Your task to perform on an android device: turn off picture-in-picture Image 0: 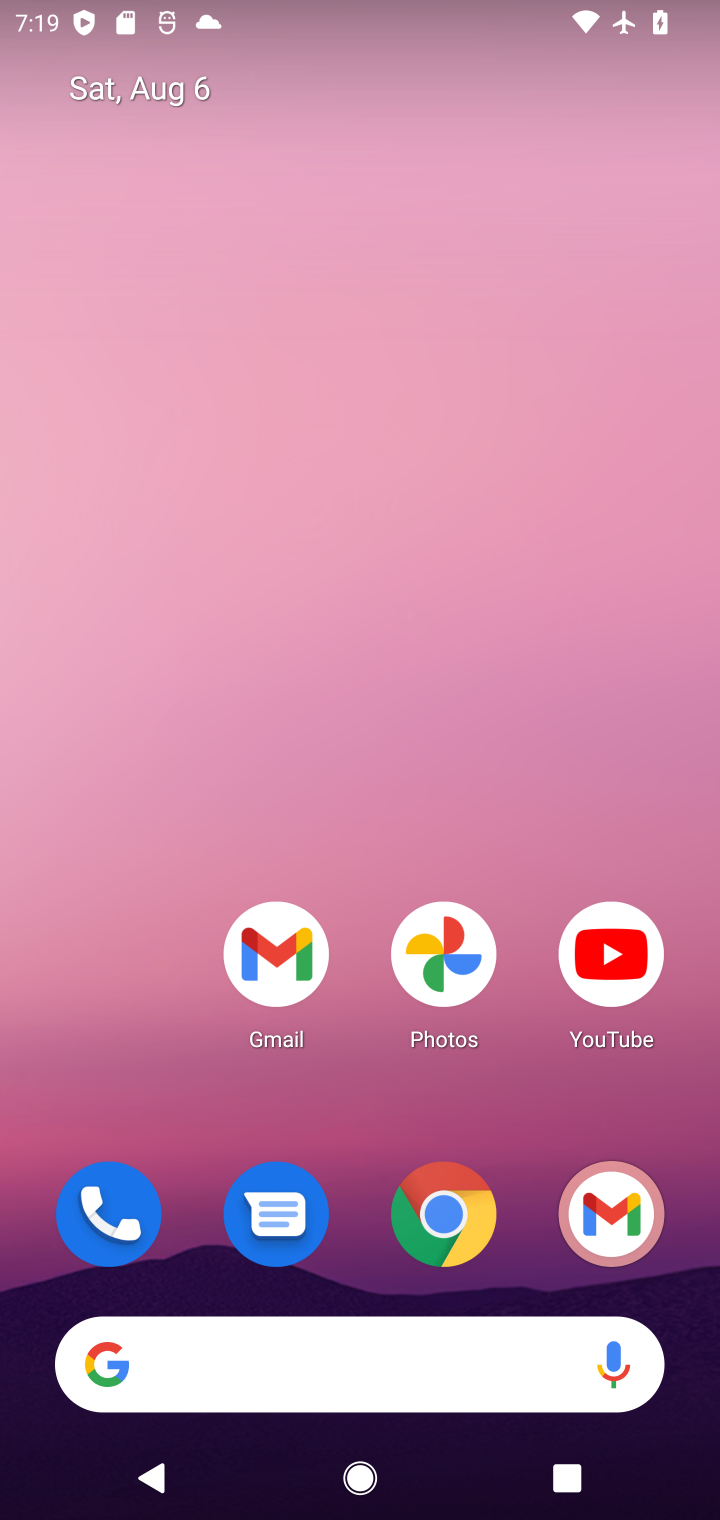
Step 0: click (443, 1227)
Your task to perform on an android device: turn off picture-in-picture Image 1: 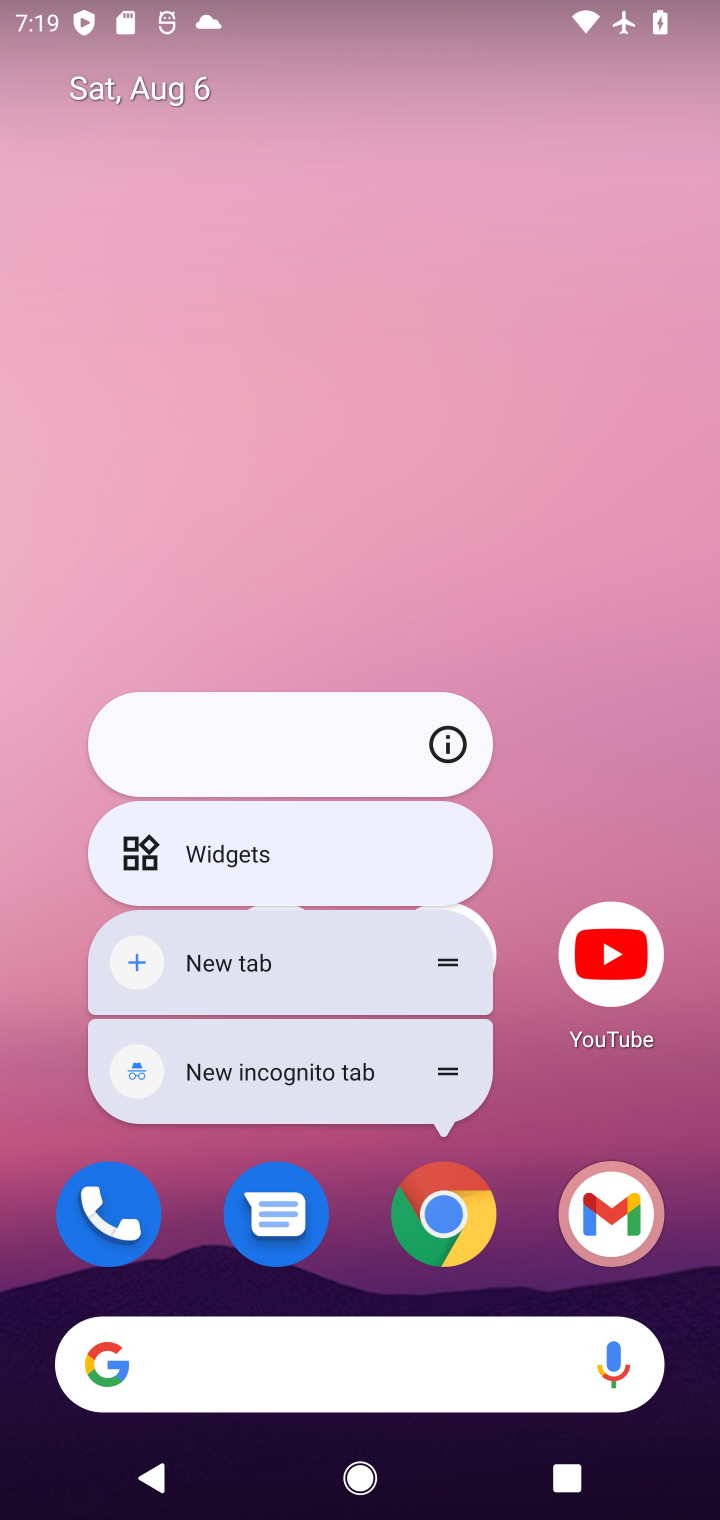
Step 1: click (458, 748)
Your task to perform on an android device: turn off picture-in-picture Image 2: 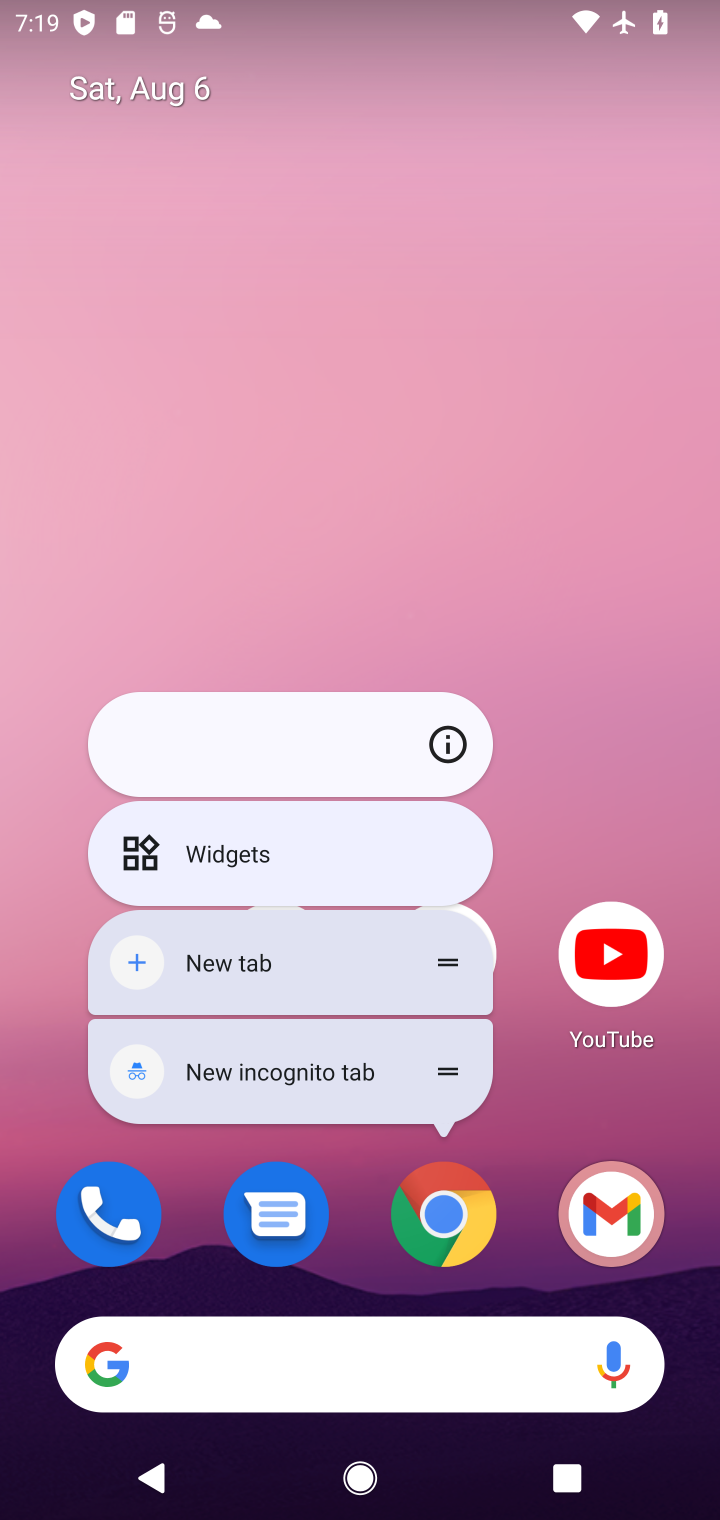
Step 2: click (441, 740)
Your task to perform on an android device: turn off picture-in-picture Image 3: 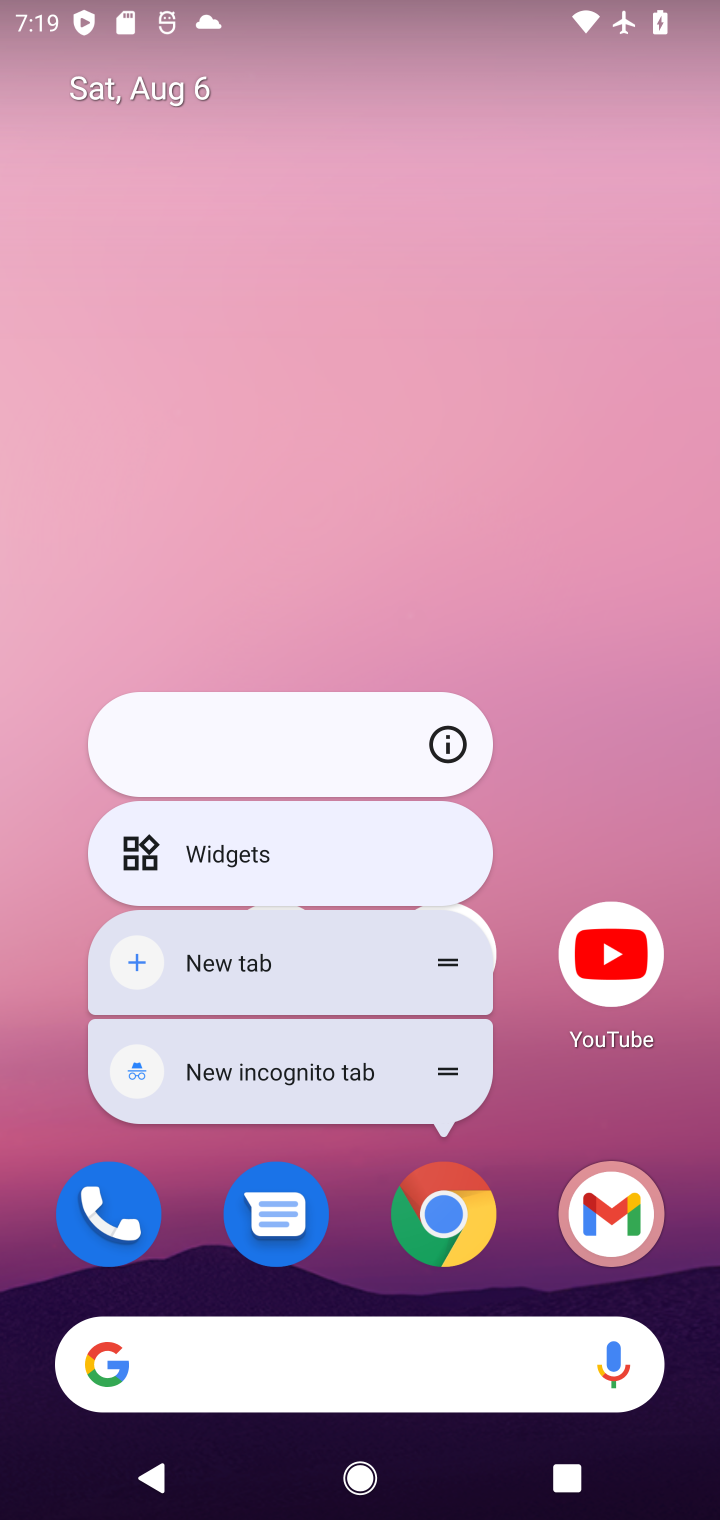
Step 3: click (441, 771)
Your task to perform on an android device: turn off picture-in-picture Image 4: 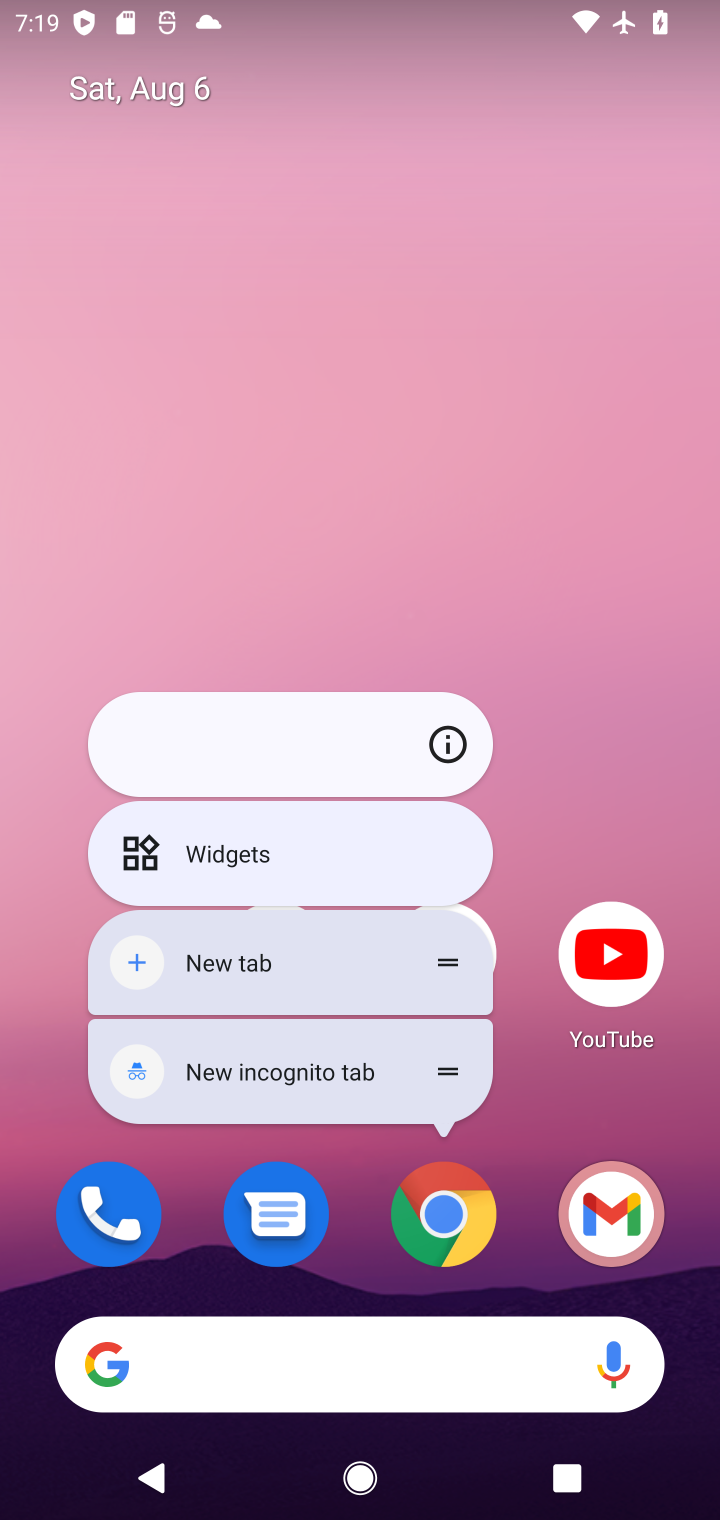
Step 4: click (451, 737)
Your task to perform on an android device: turn off picture-in-picture Image 5: 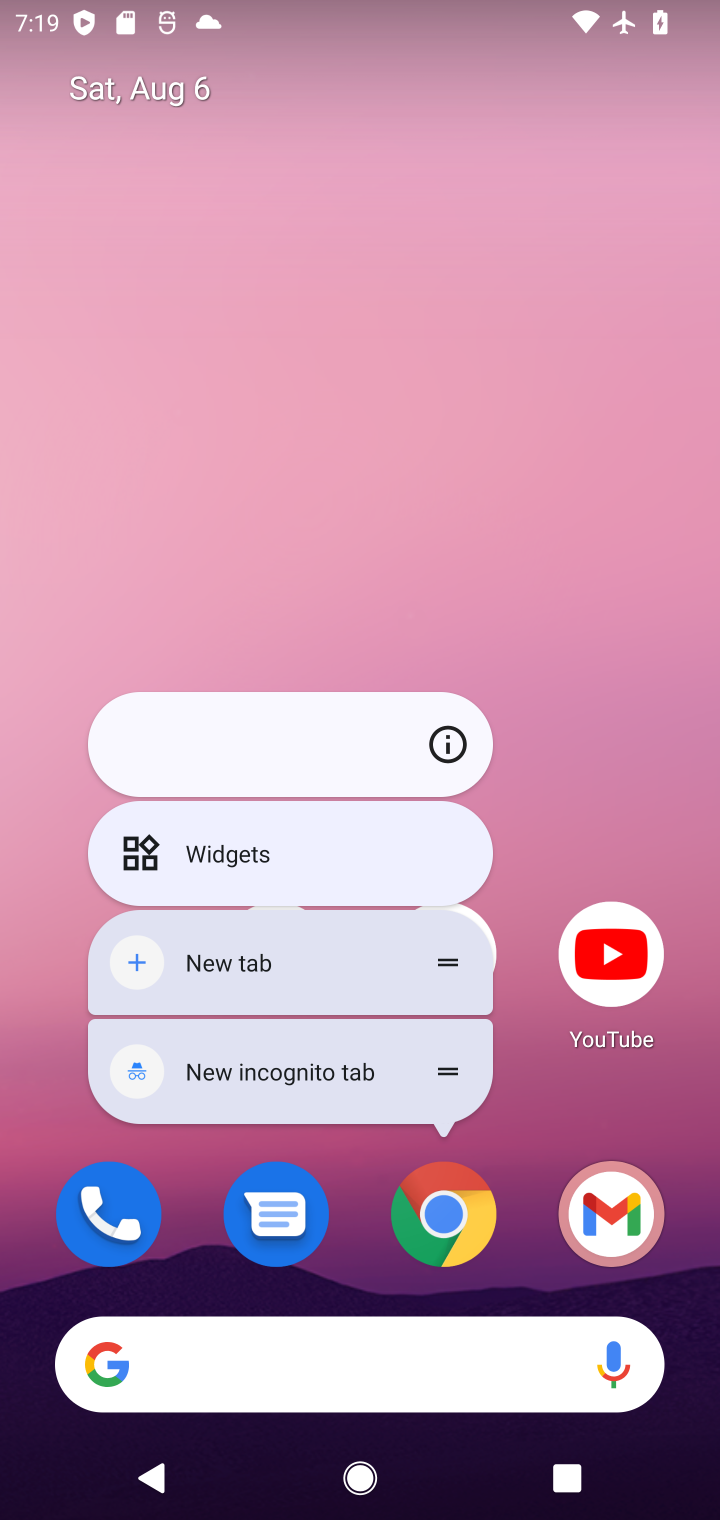
Step 5: click (448, 739)
Your task to perform on an android device: turn off picture-in-picture Image 6: 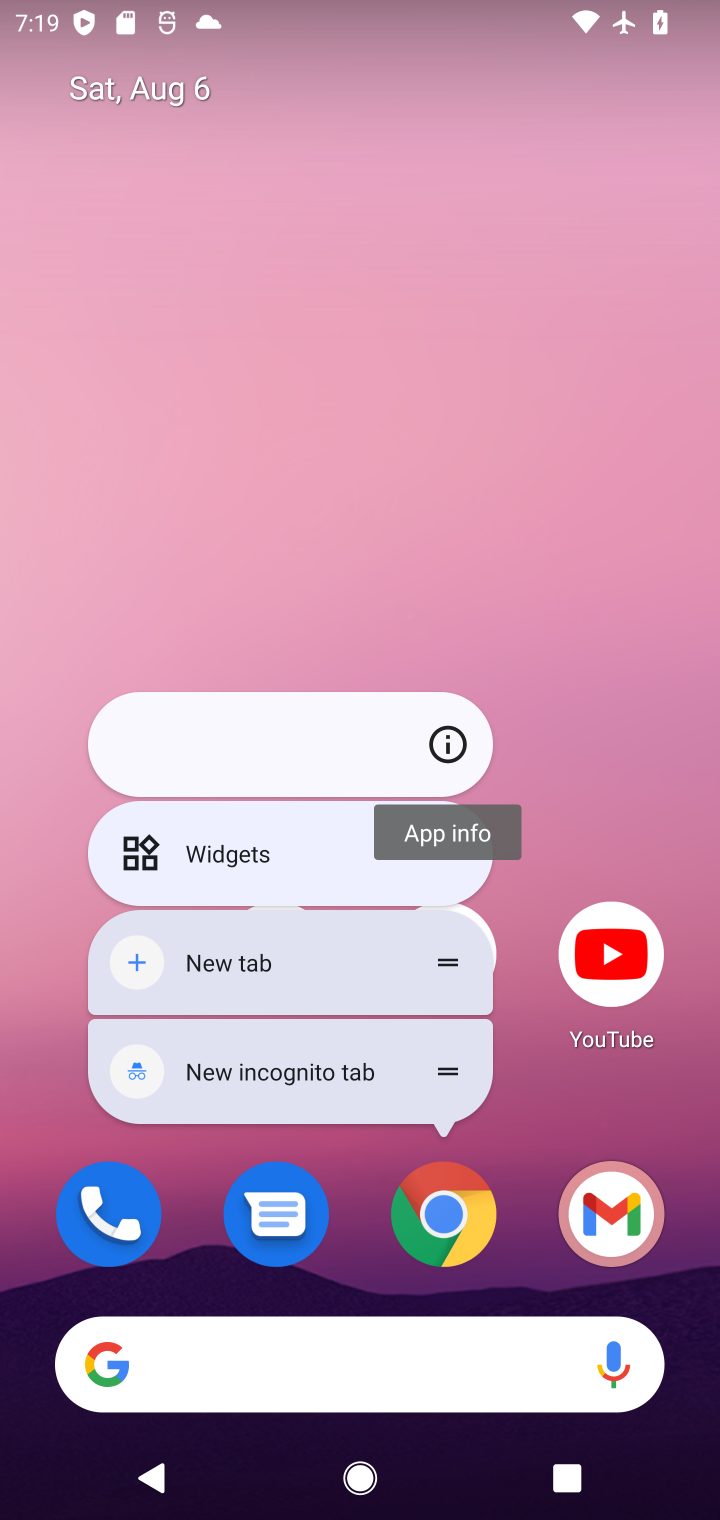
Step 6: click (452, 745)
Your task to perform on an android device: turn off picture-in-picture Image 7: 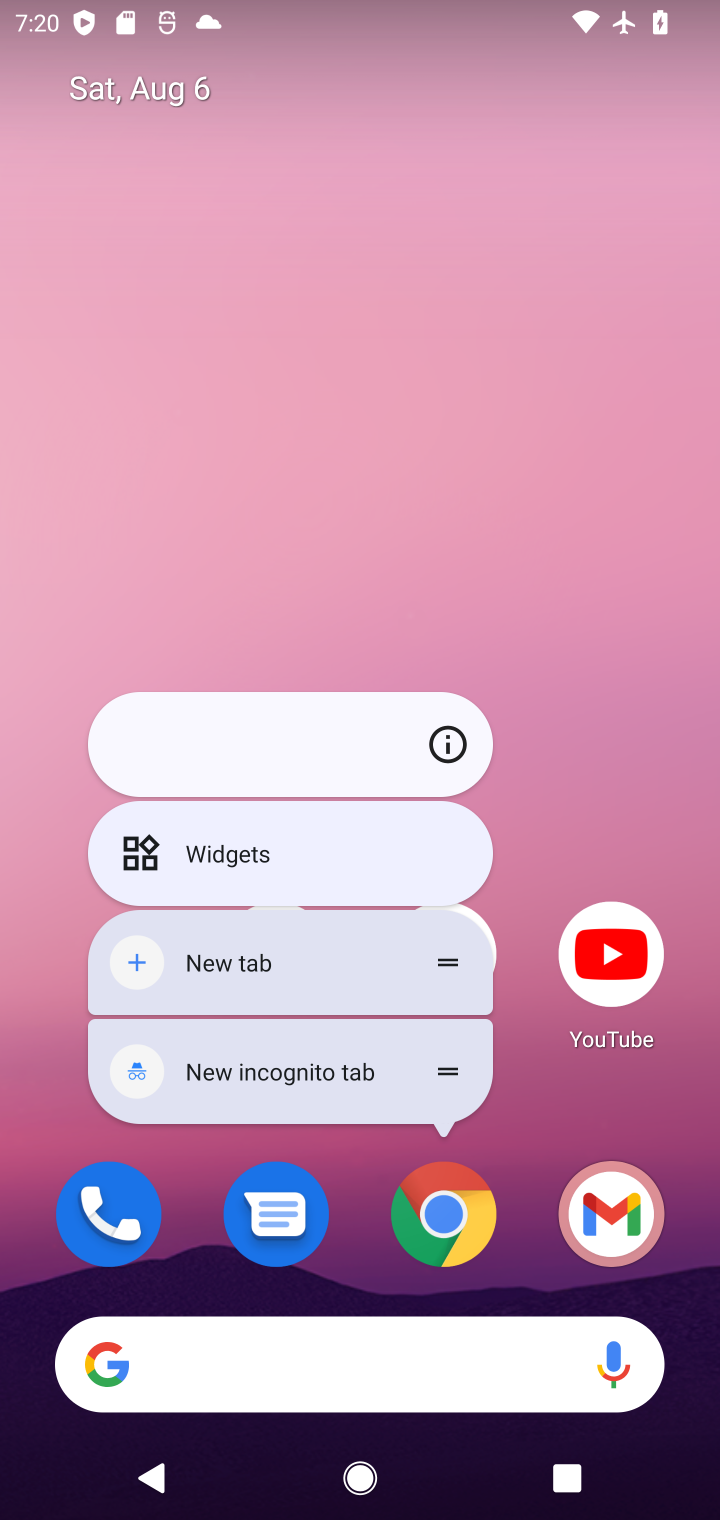
Step 7: click (459, 749)
Your task to perform on an android device: turn off picture-in-picture Image 8: 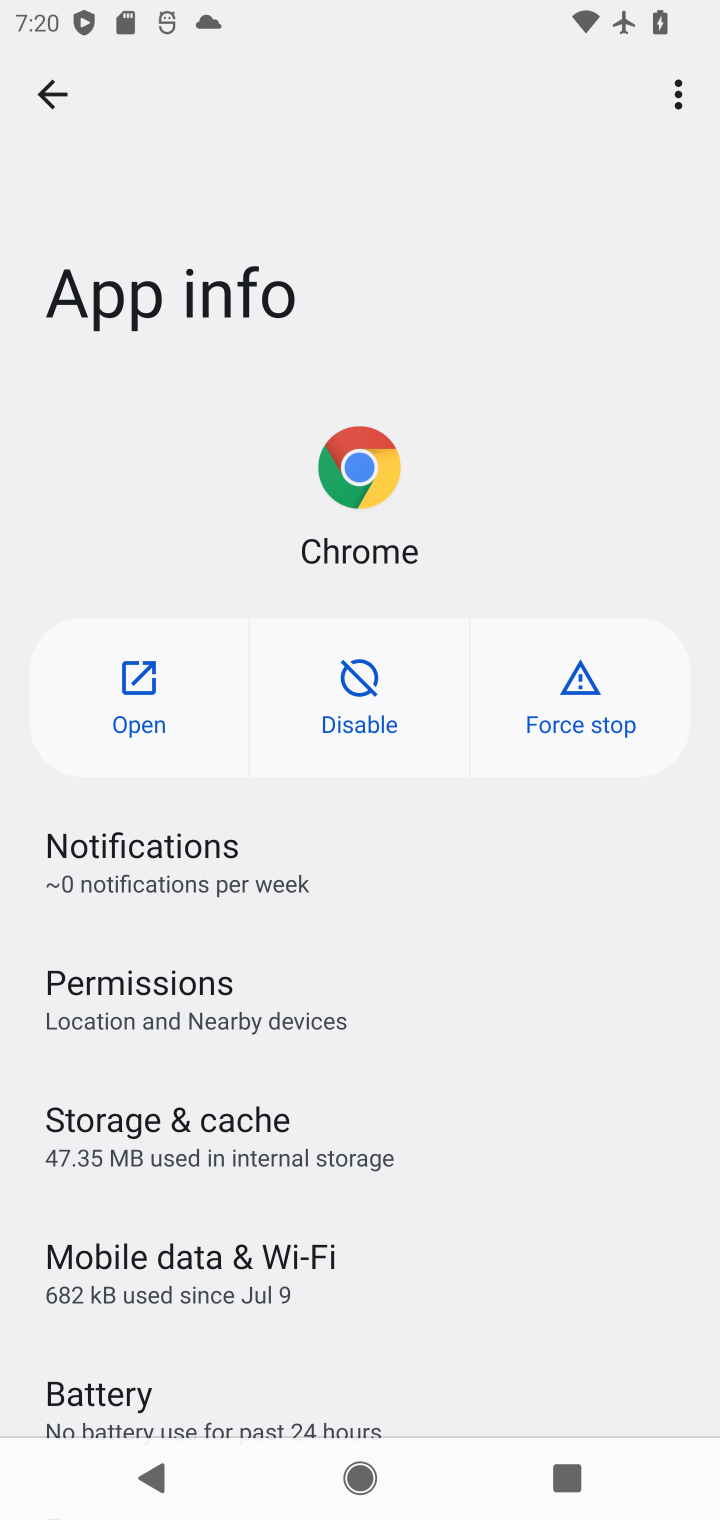
Step 8: drag from (328, 1289) to (431, 147)
Your task to perform on an android device: turn off picture-in-picture Image 9: 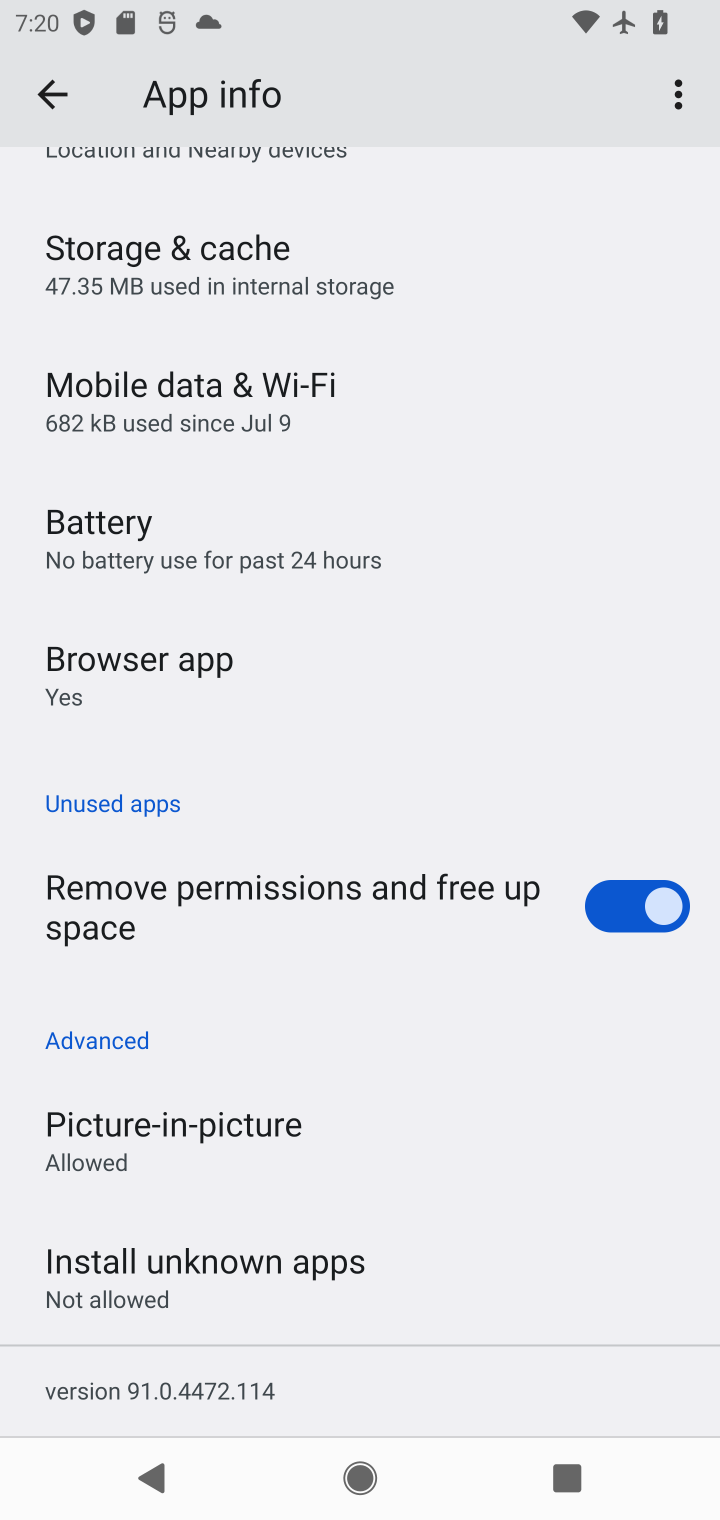
Step 9: drag from (279, 1199) to (321, 366)
Your task to perform on an android device: turn off picture-in-picture Image 10: 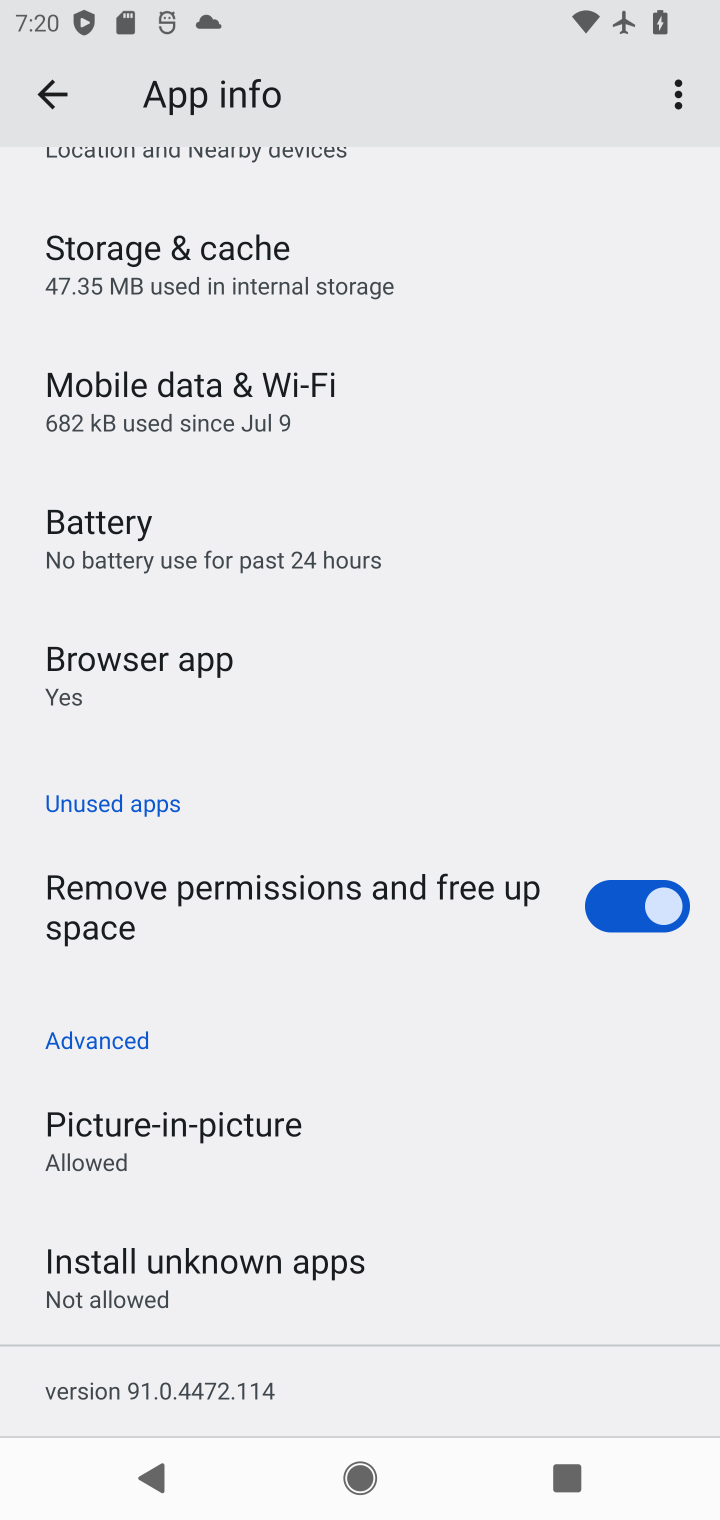
Step 10: click (195, 1156)
Your task to perform on an android device: turn off picture-in-picture Image 11: 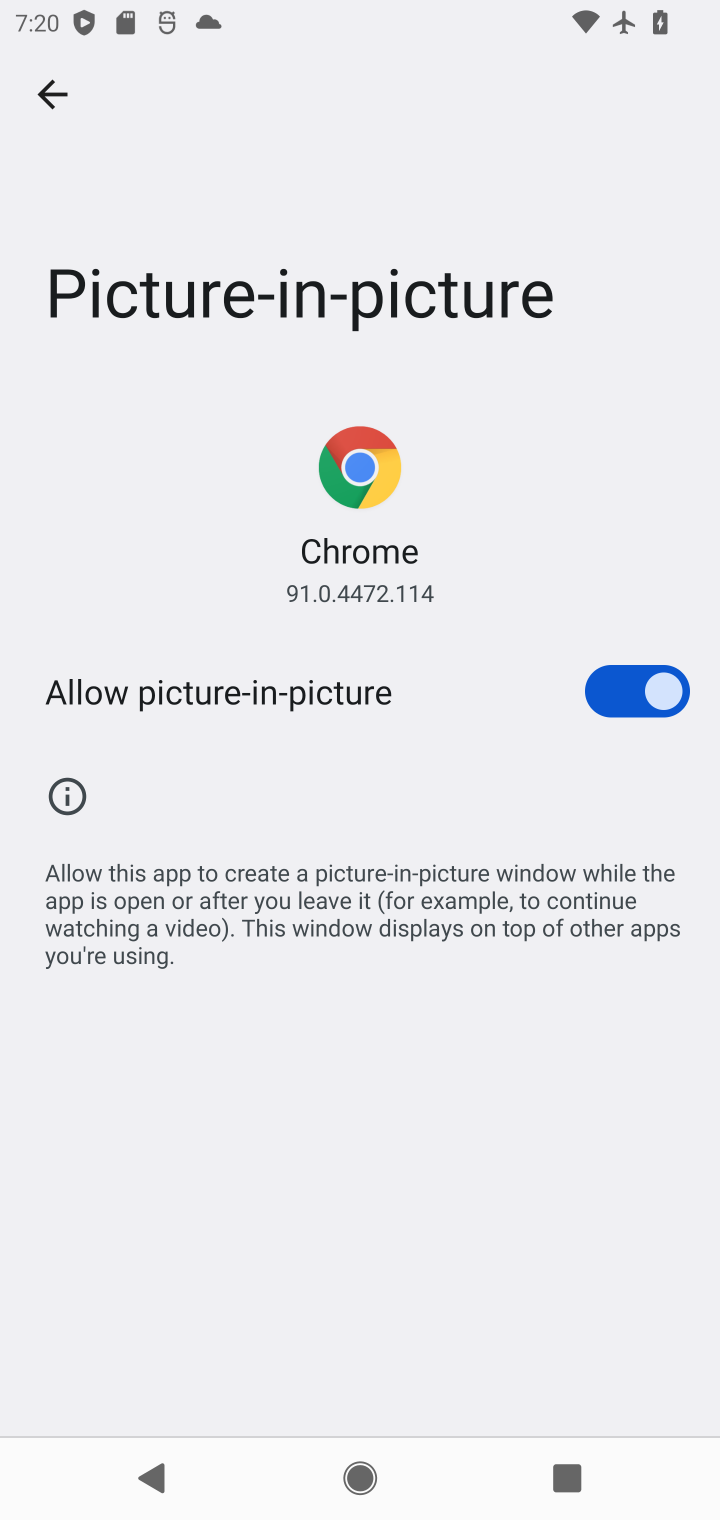
Step 11: click (559, 680)
Your task to perform on an android device: turn off picture-in-picture Image 12: 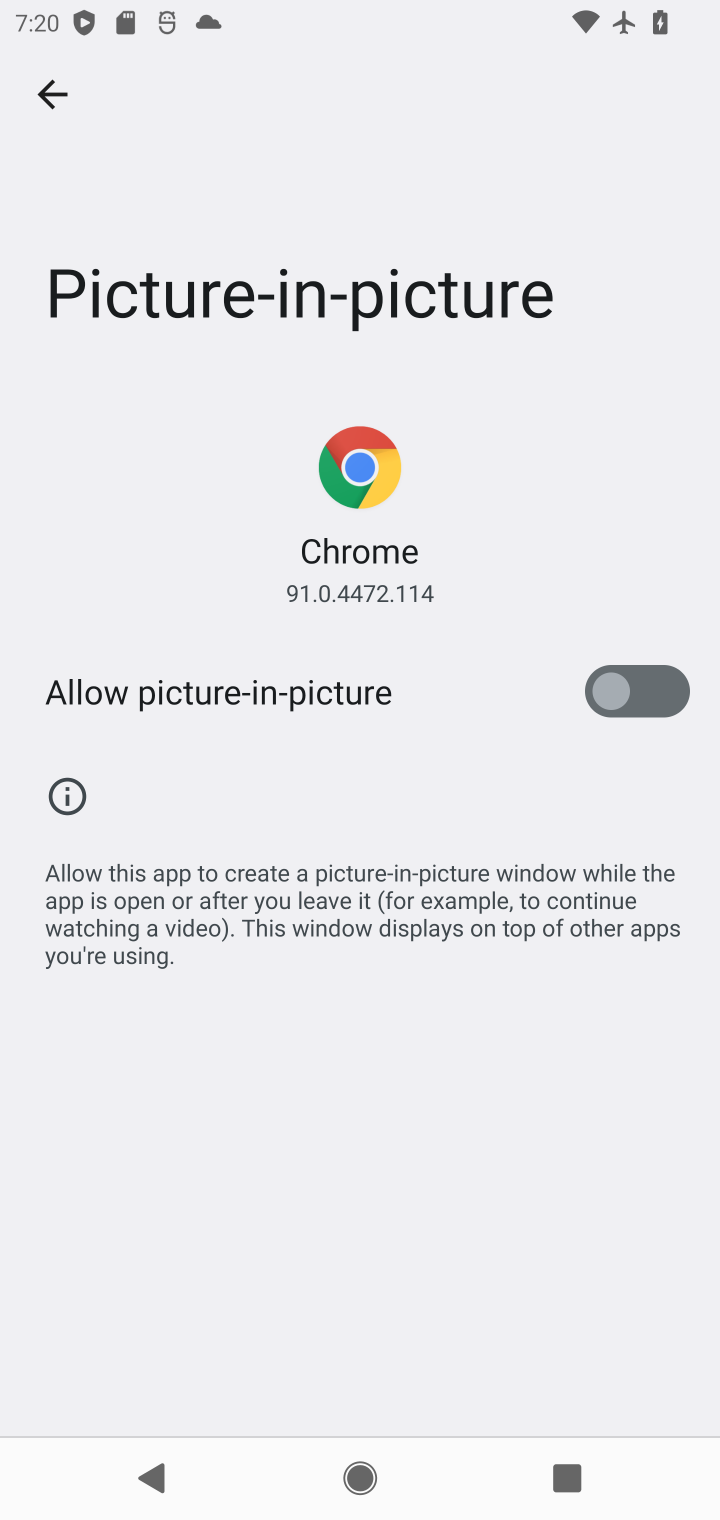
Step 12: task complete